Your task to perform on an android device: delete location history Image 0: 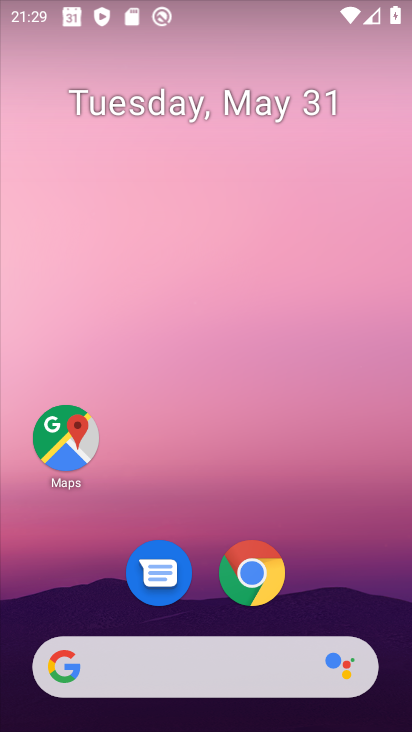
Step 0: drag from (348, 584) to (306, 66)
Your task to perform on an android device: delete location history Image 1: 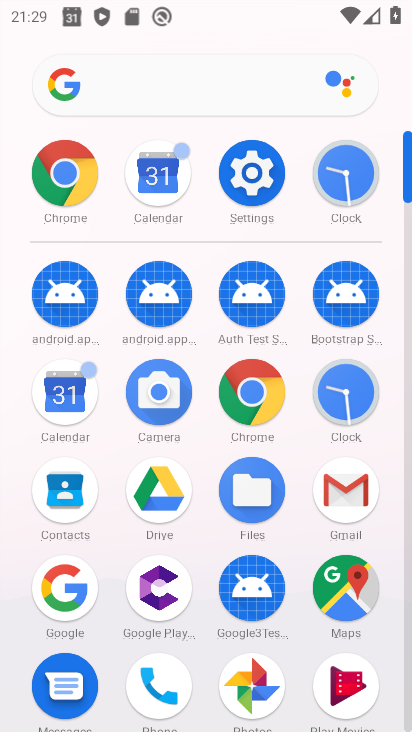
Step 1: click (344, 581)
Your task to perform on an android device: delete location history Image 2: 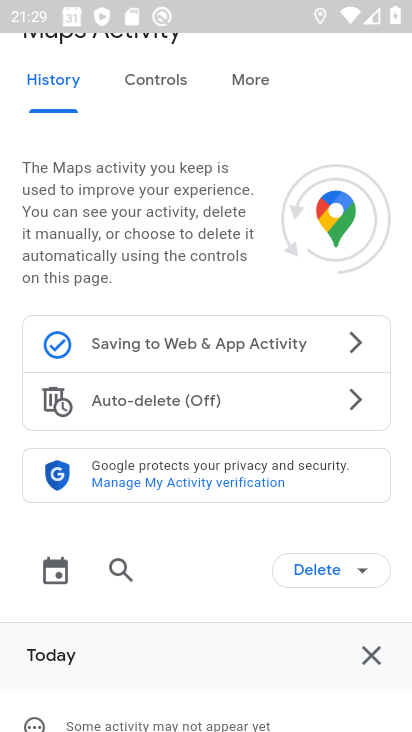
Step 2: click (321, 565)
Your task to perform on an android device: delete location history Image 3: 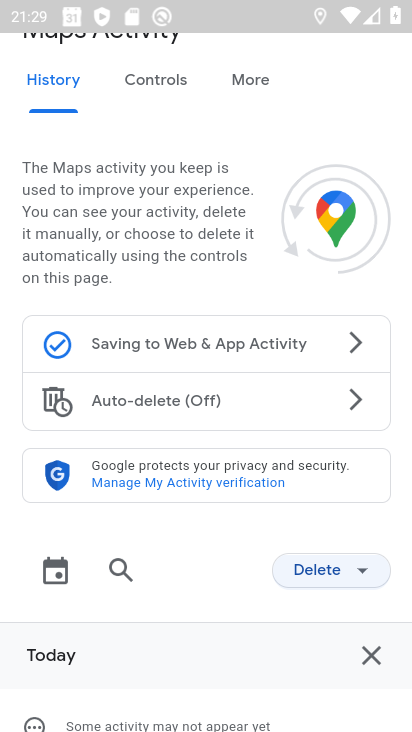
Step 3: click (321, 565)
Your task to perform on an android device: delete location history Image 4: 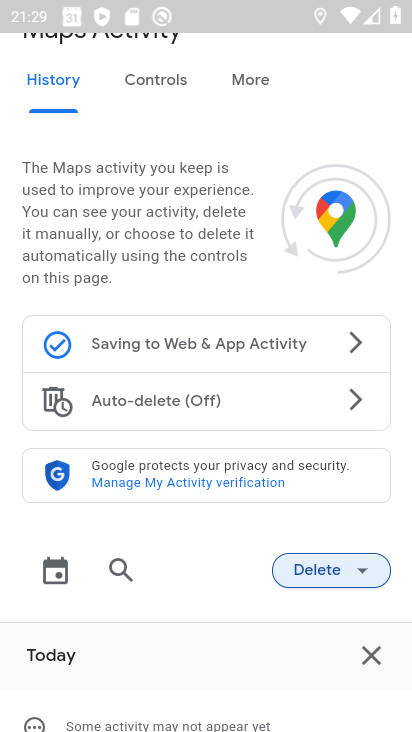
Step 4: click (324, 571)
Your task to perform on an android device: delete location history Image 5: 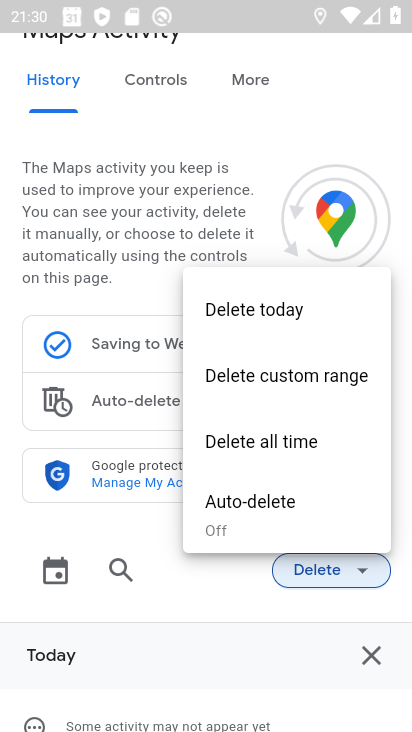
Step 5: click (272, 441)
Your task to perform on an android device: delete location history Image 6: 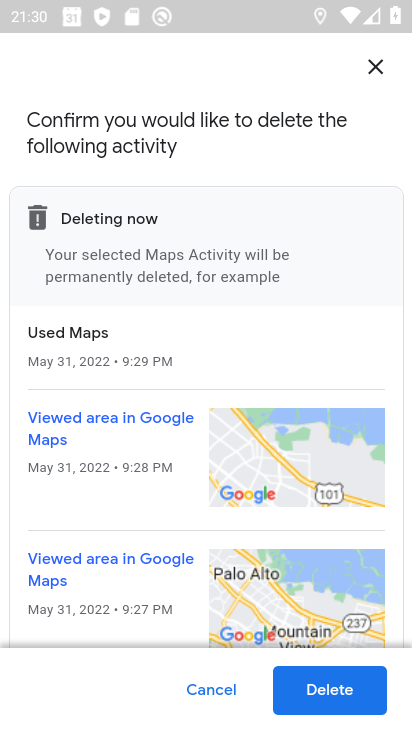
Step 6: click (331, 696)
Your task to perform on an android device: delete location history Image 7: 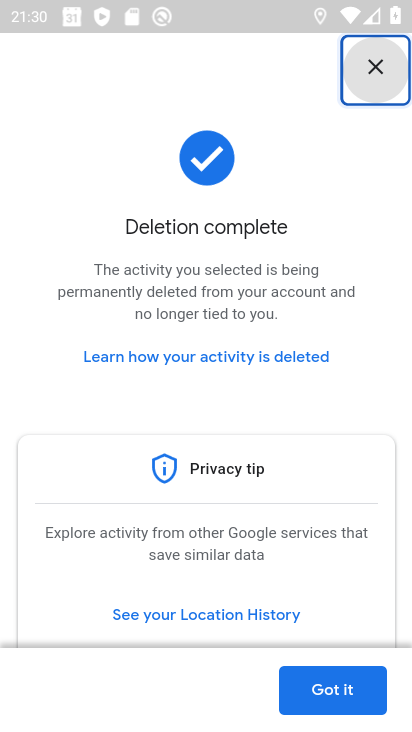
Step 7: click (329, 681)
Your task to perform on an android device: delete location history Image 8: 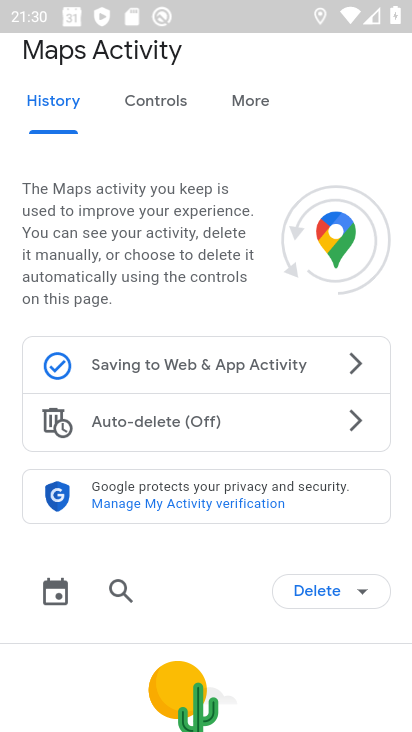
Step 8: task complete